Your task to perform on an android device: Open Google Maps Image 0: 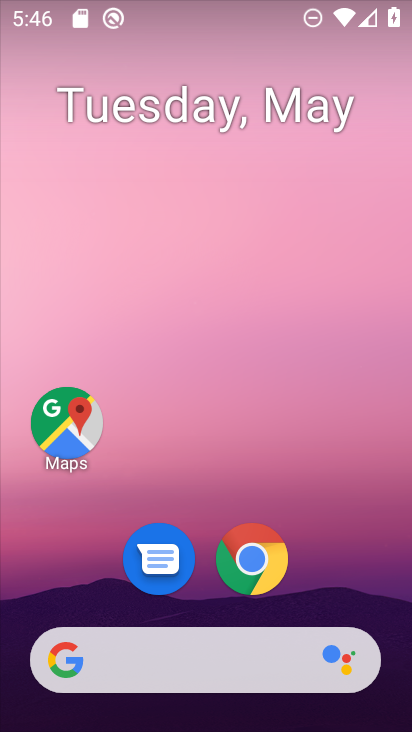
Step 0: click (67, 429)
Your task to perform on an android device: Open Google Maps Image 1: 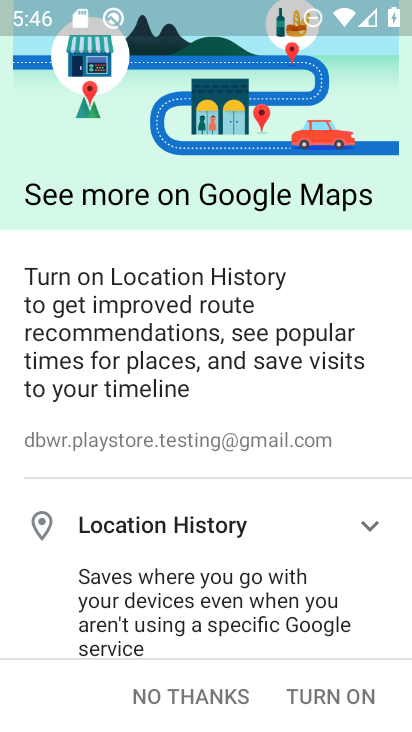
Step 1: click (169, 682)
Your task to perform on an android device: Open Google Maps Image 2: 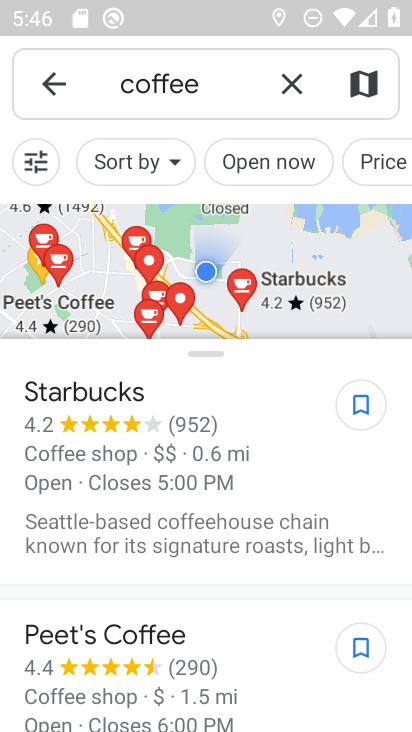
Step 2: task complete